Your task to perform on an android device: change the clock display to show seconds Image 0: 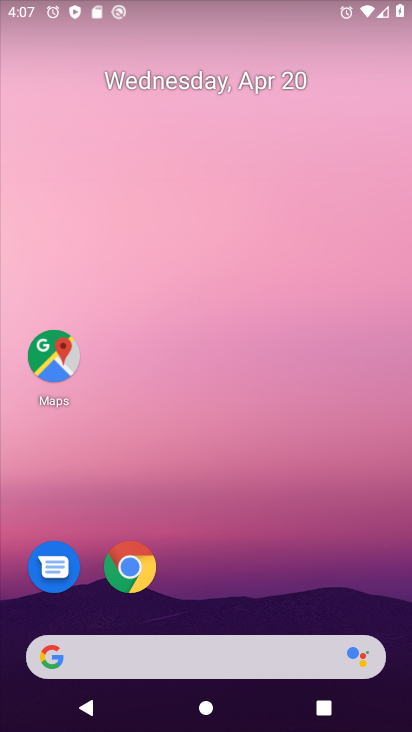
Step 0: drag from (351, 561) to (292, 211)
Your task to perform on an android device: change the clock display to show seconds Image 1: 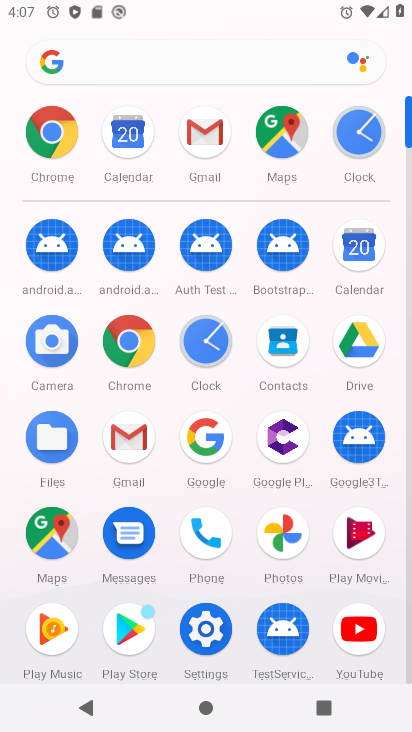
Step 1: click (337, 137)
Your task to perform on an android device: change the clock display to show seconds Image 2: 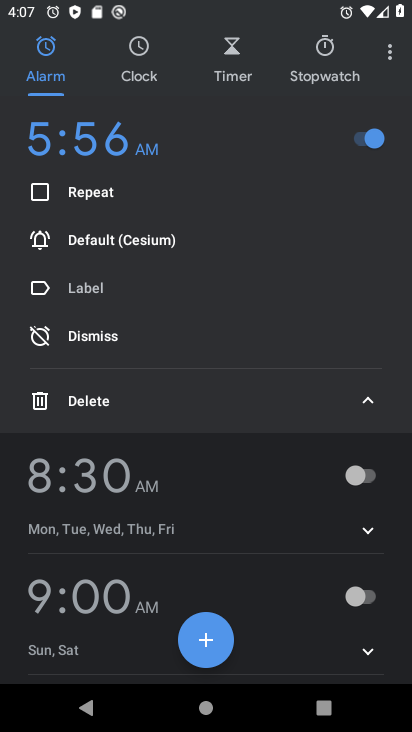
Step 2: click (393, 64)
Your task to perform on an android device: change the clock display to show seconds Image 3: 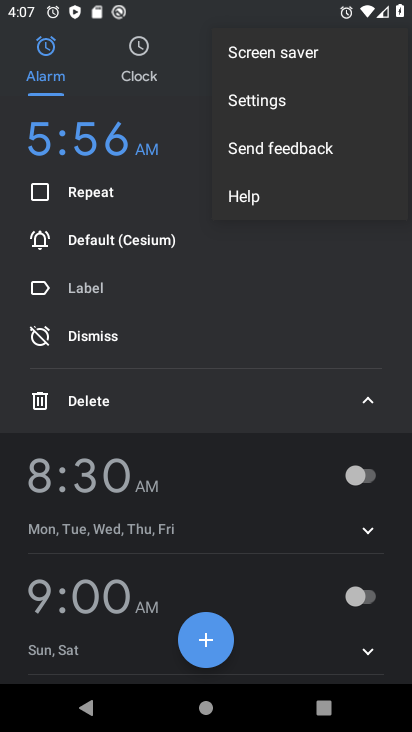
Step 3: click (361, 103)
Your task to perform on an android device: change the clock display to show seconds Image 4: 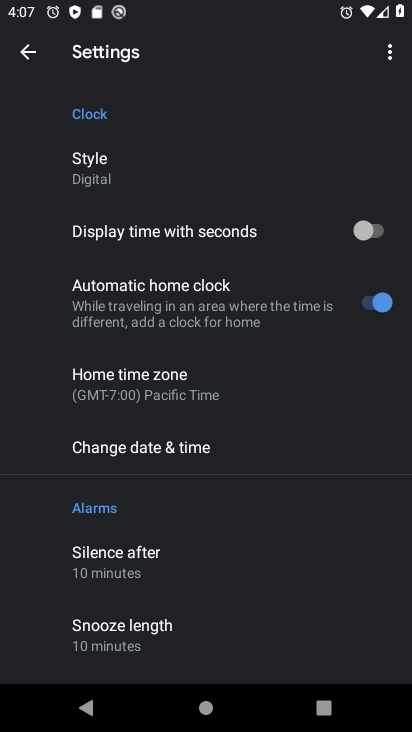
Step 4: click (381, 222)
Your task to perform on an android device: change the clock display to show seconds Image 5: 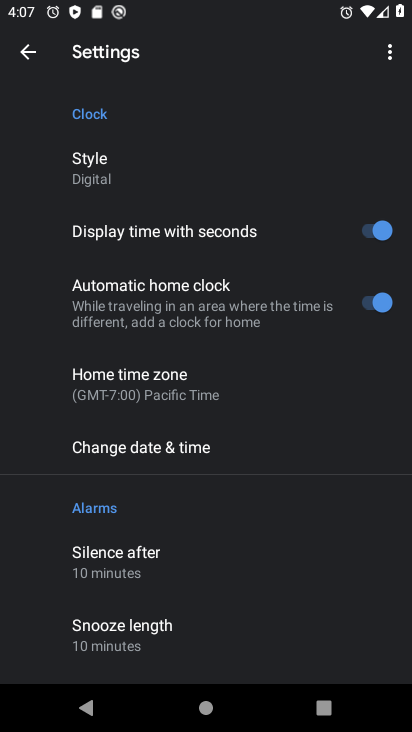
Step 5: task complete